Your task to perform on an android device: open app "Truecaller" (install if not already installed), go to login, and select forgot password Image 0: 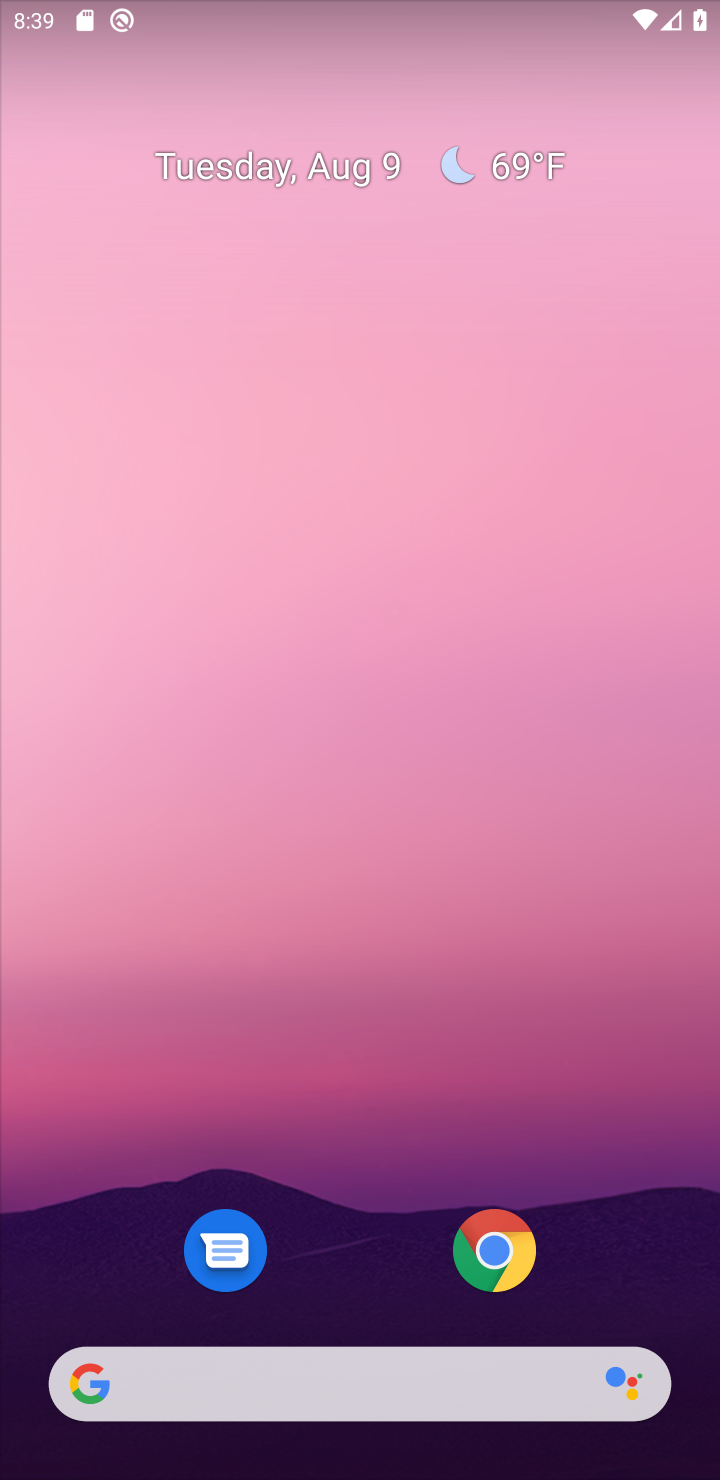
Step 0: drag from (695, 1295) to (646, 183)
Your task to perform on an android device: open app "Truecaller" (install if not already installed), go to login, and select forgot password Image 1: 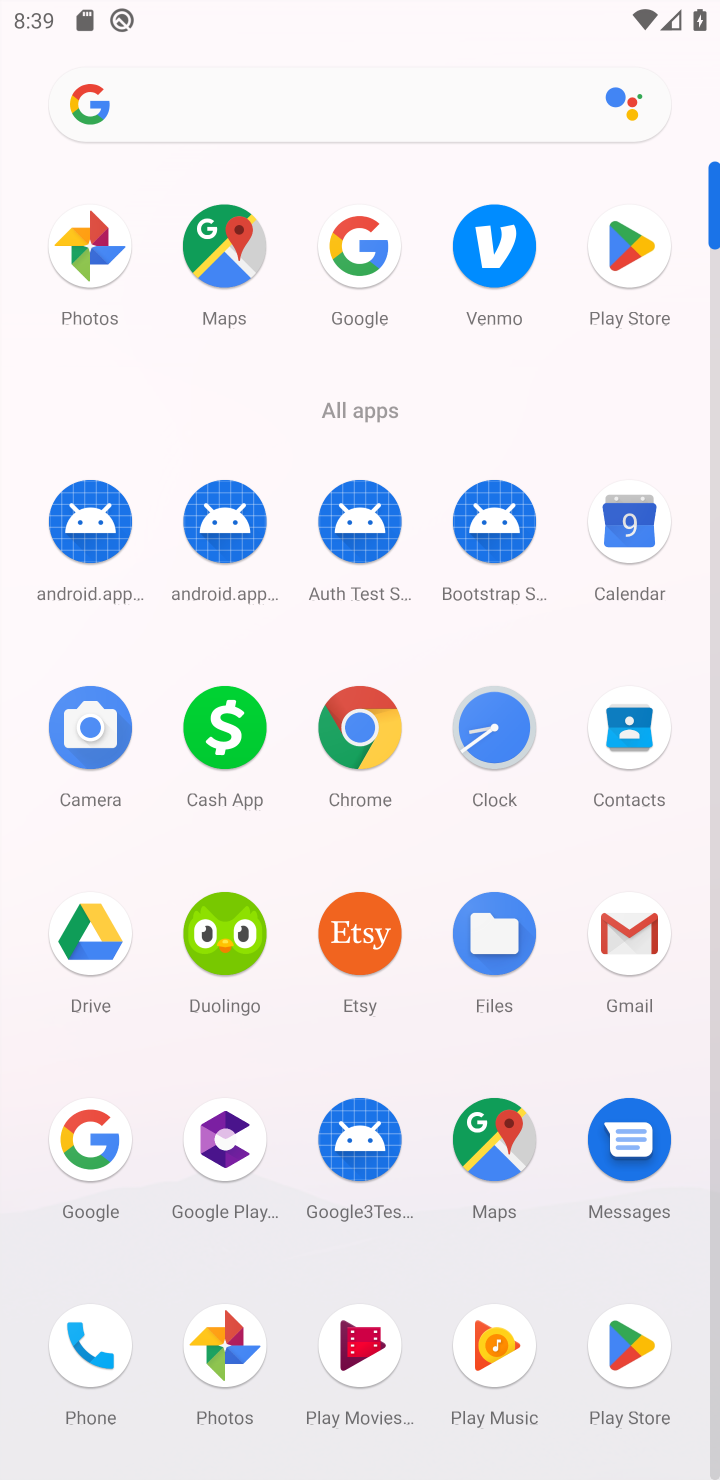
Step 1: click (627, 1337)
Your task to perform on an android device: open app "Truecaller" (install if not already installed), go to login, and select forgot password Image 2: 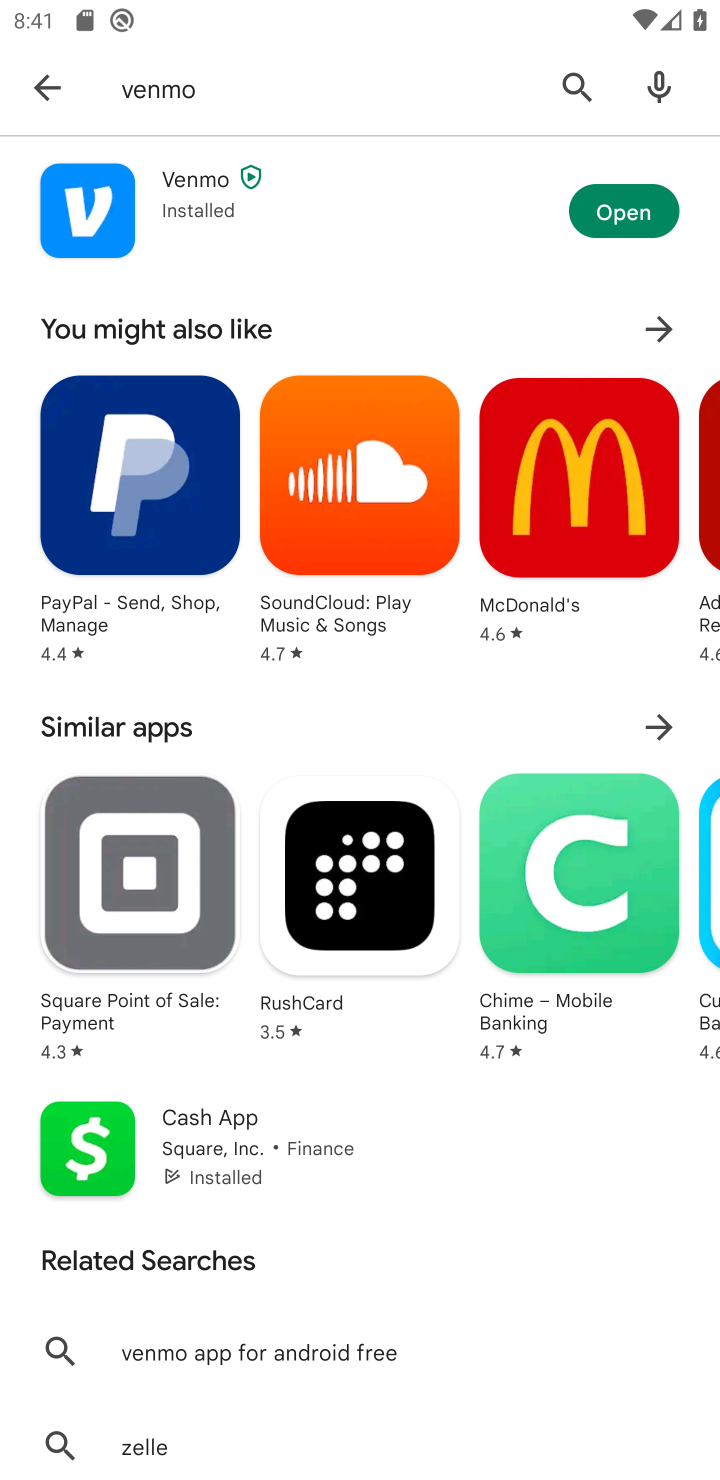
Step 2: click (558, 77)
Your task to perform on an android device: open app "Truecaller" (install if not already installed), go to login, and select forgot password Image 3: 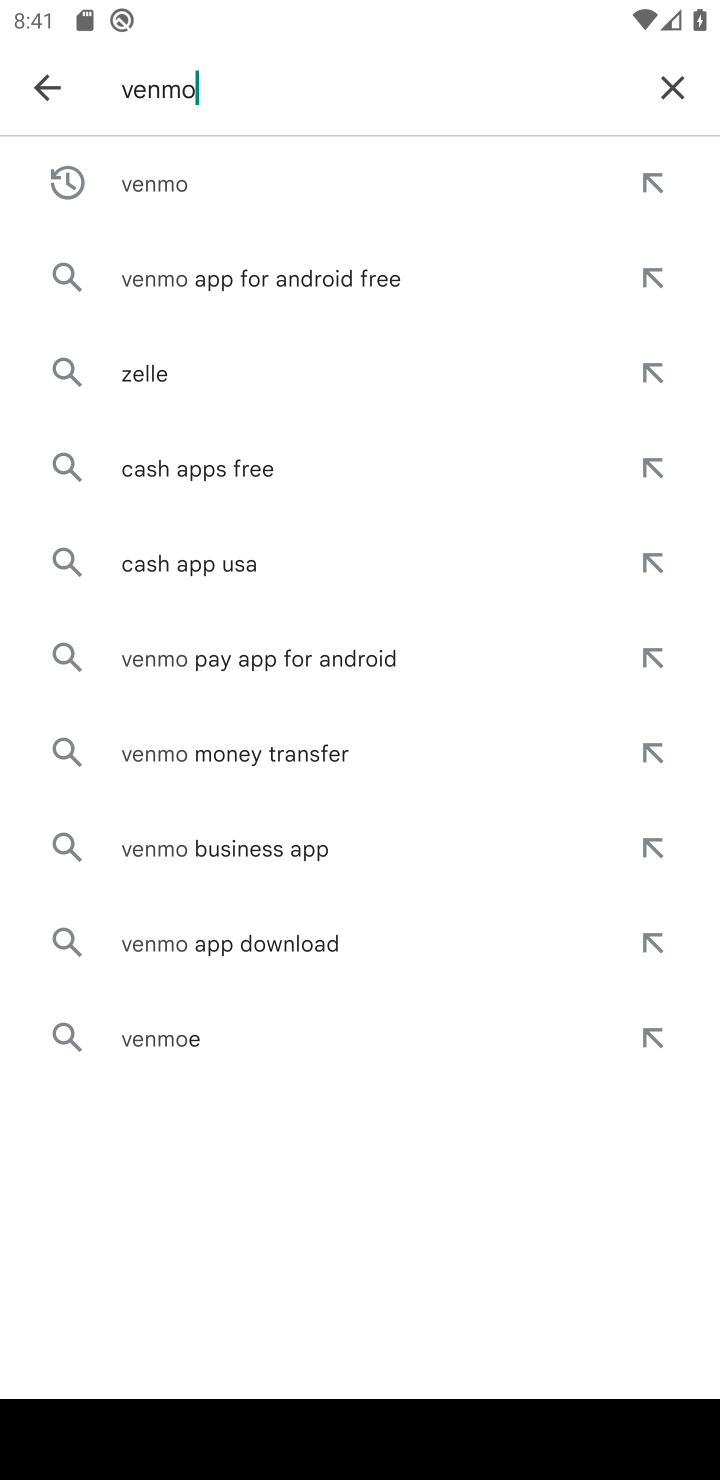
Step 3: click (673, 80)
Your task to perform on an android device: open app "Truecaller" (install if not already installed), go to login, and select forgot password Image 4: 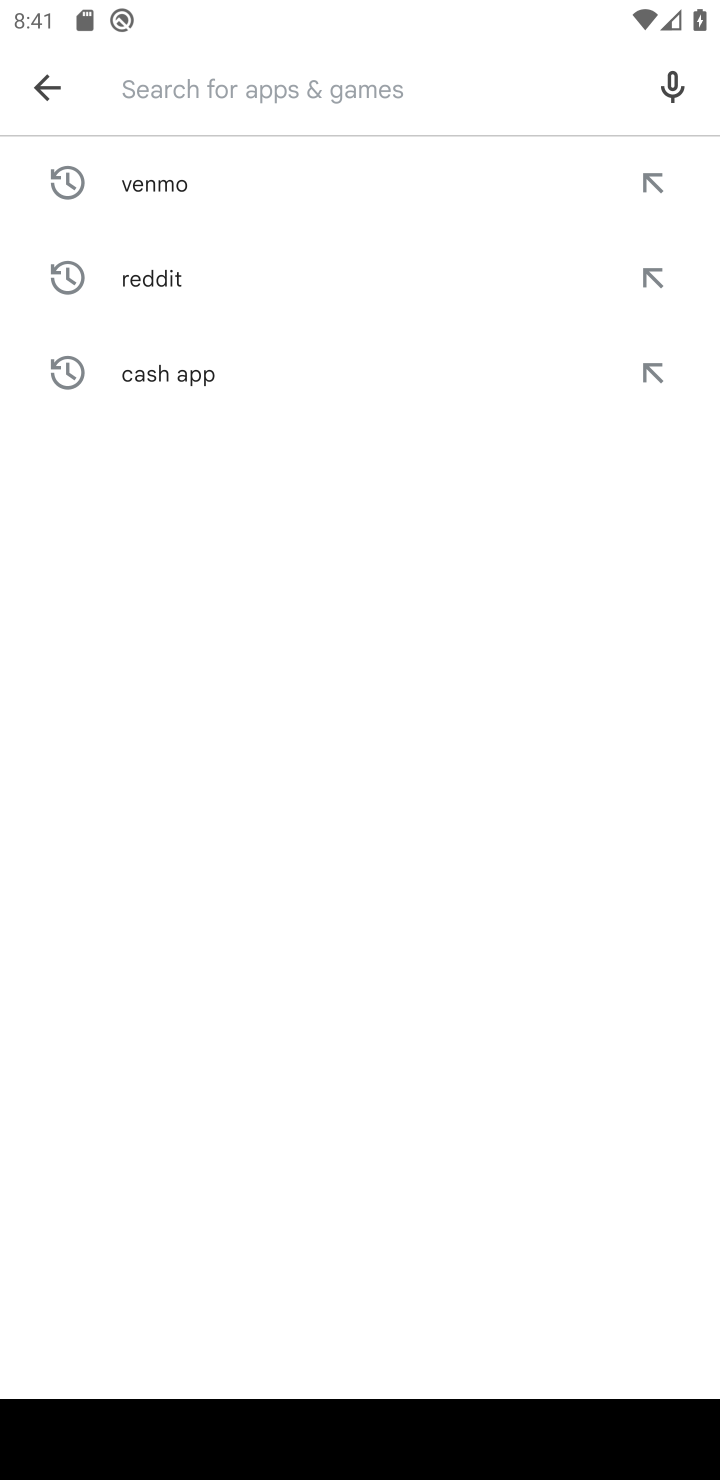
Step 4: type "Truecaller"
Your task to perform on an android device: open app "Truecaller" (install if not already installed), go to login, and select forgot password Image 5: 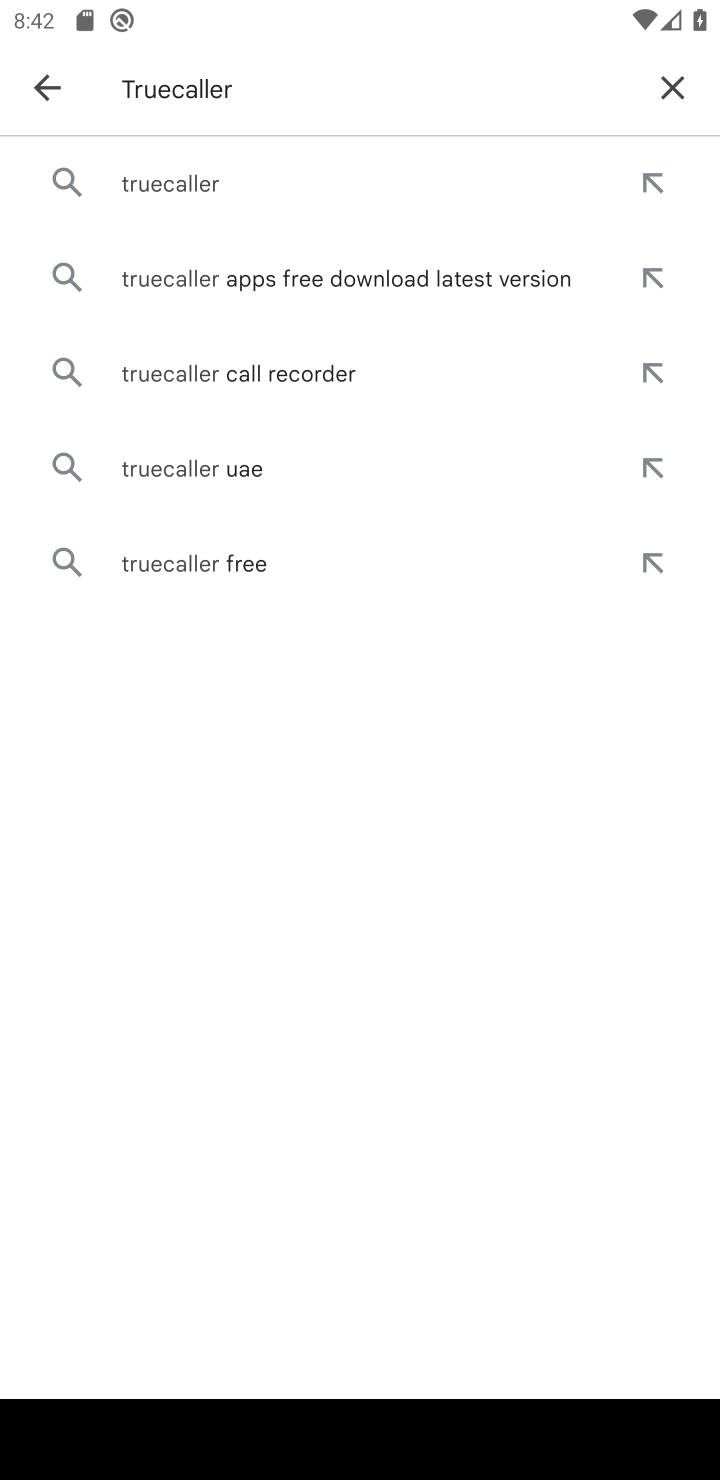
Step 5: click (174, 178)
Your task to perform on an android device: open app "Truecaller" (install if not already installed), go to login, and select forgot password Image 6: 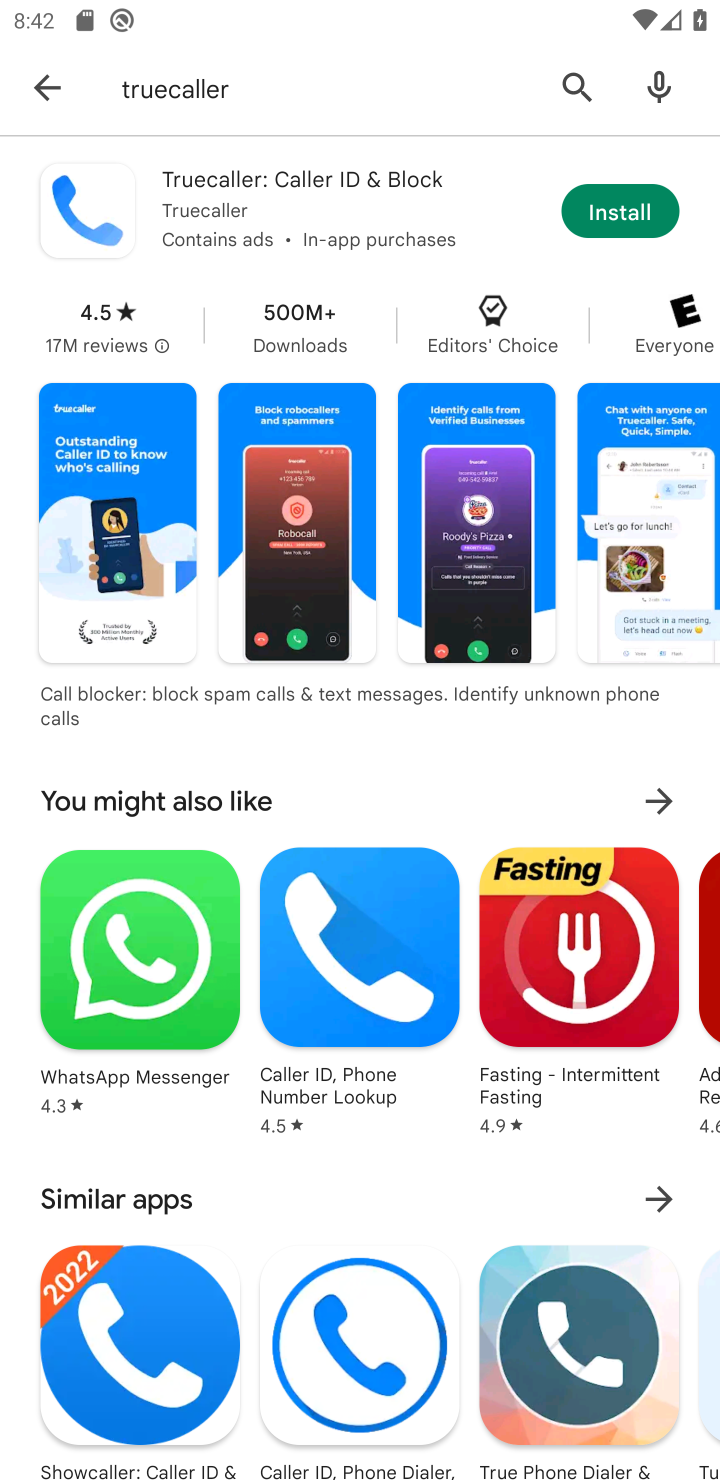
Step 6: click (589, 202)
Your task to perform on an android device: open app "Truecaller" (install if not already installed), go to login, and select forgot password Image 7: 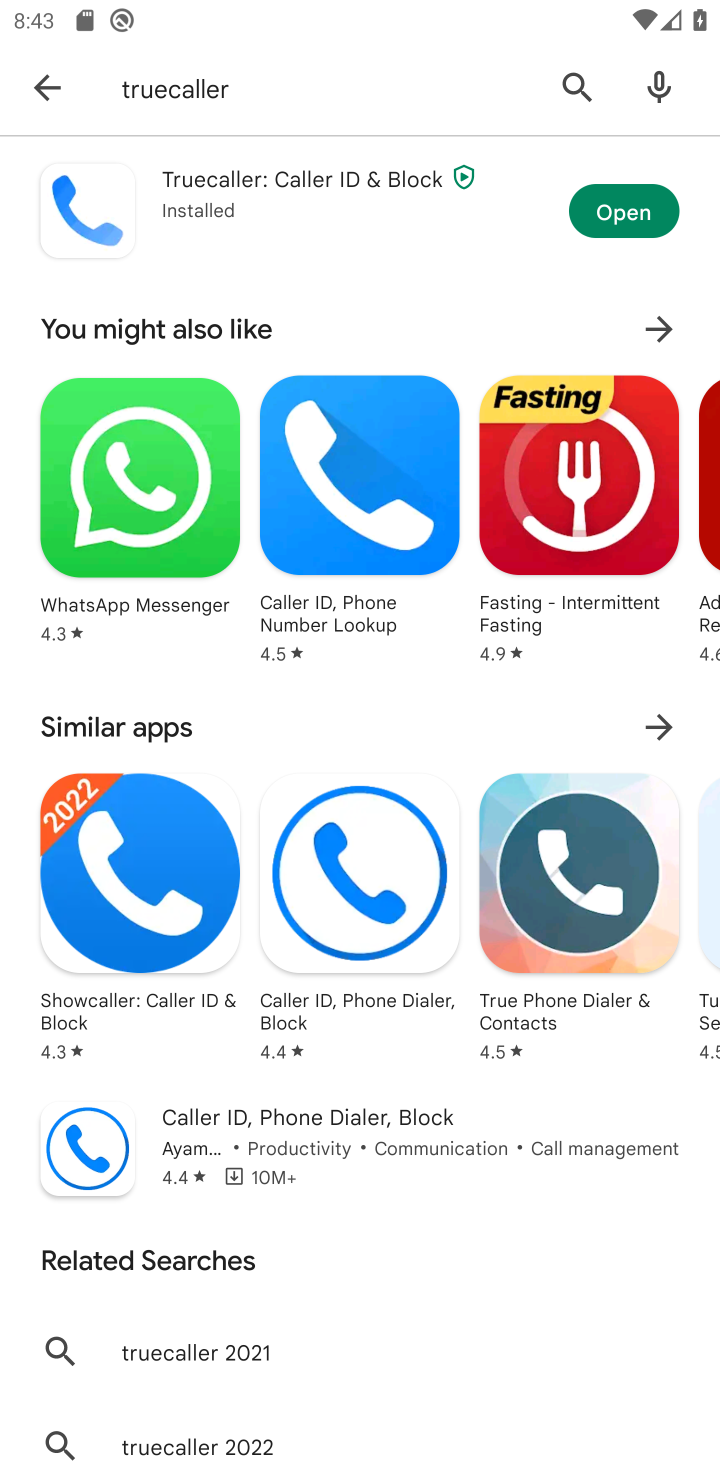
Step 7: click (611, 200)
Your task to perform on an android device: open app "Truecaller" (install if not already installed), go to login, and select forgot password Image 8: 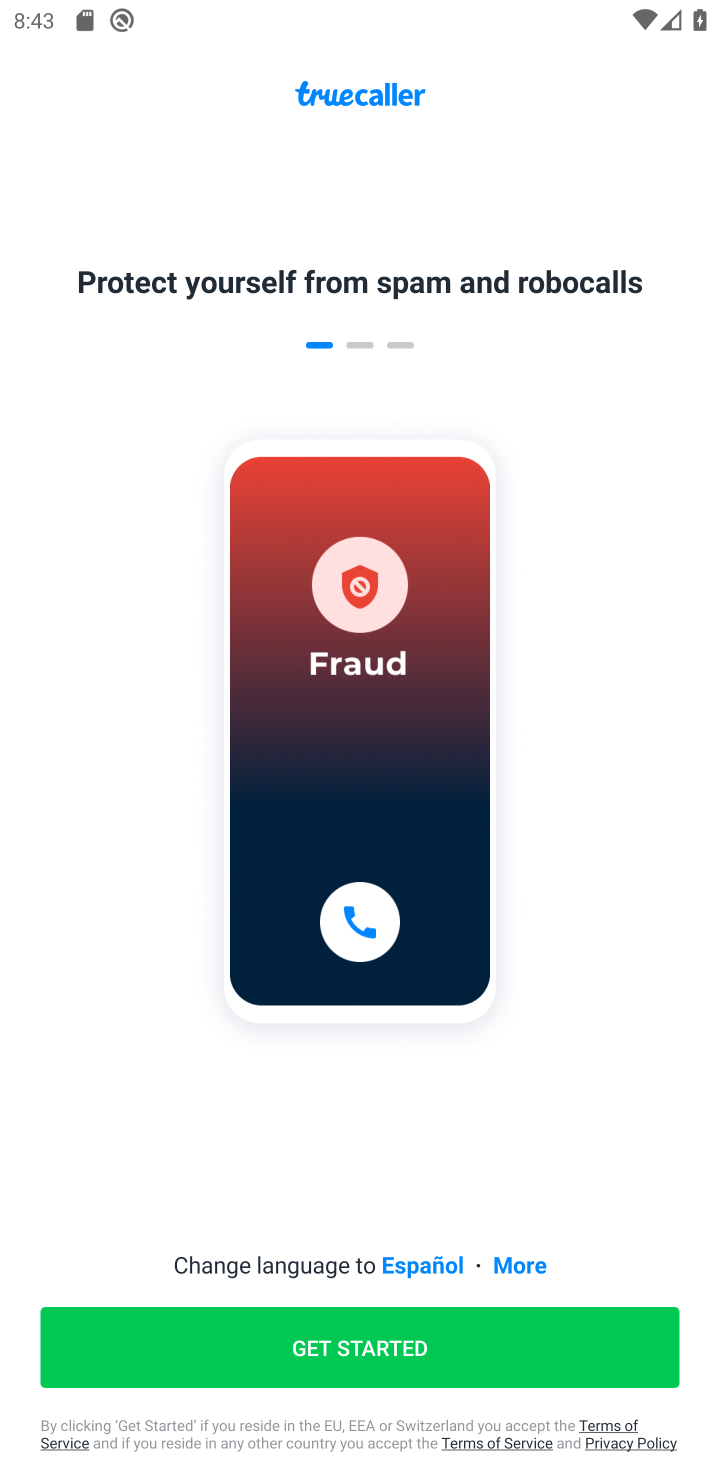
Step 8: task complete